Your task to perform on an android device: Find coffee shops on Maps Image 0: 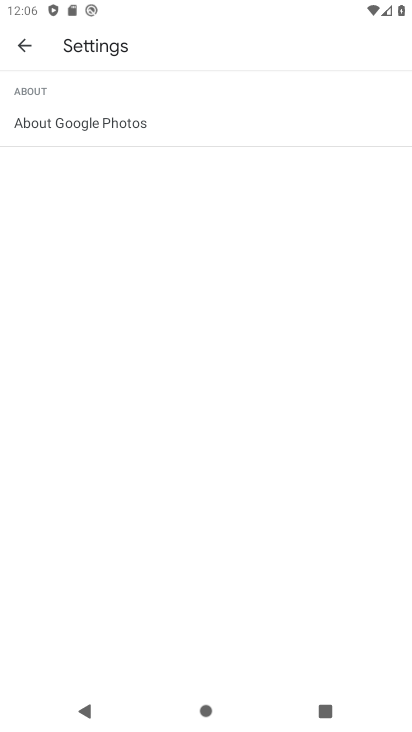
Step 0: press back button
Your task to perform on an android device: Find coffee shops on Maps Image 1: 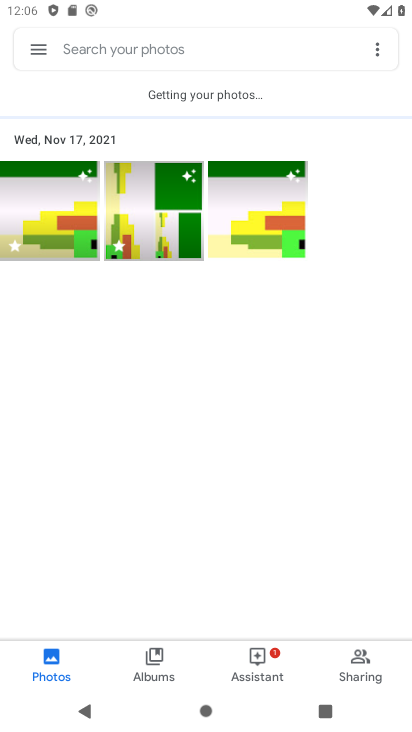
Step 1: press home button
Your task to perform on an android device: Find coffee shops on Maps Image 2: 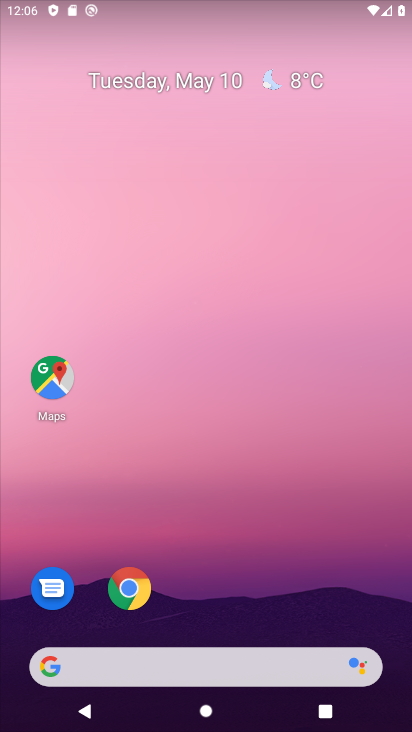
Step 2: click (58, 382)
Your task to perform on an android device: Find coffee shops on Maps Image 3: 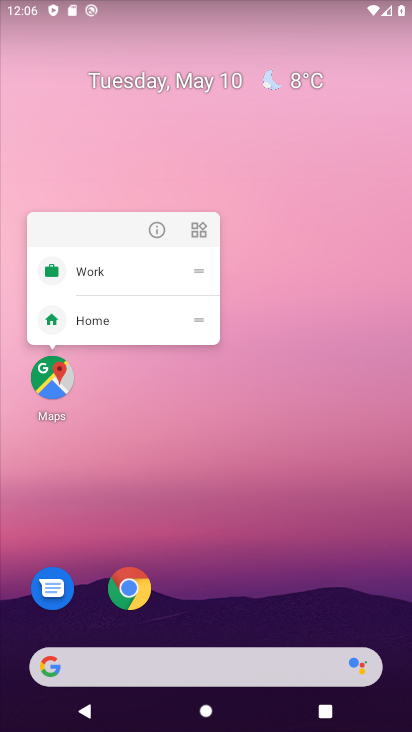
Step 3: click (62, 378)
Your task to perform on an android device: Find coffee shops on Maps Image 4: 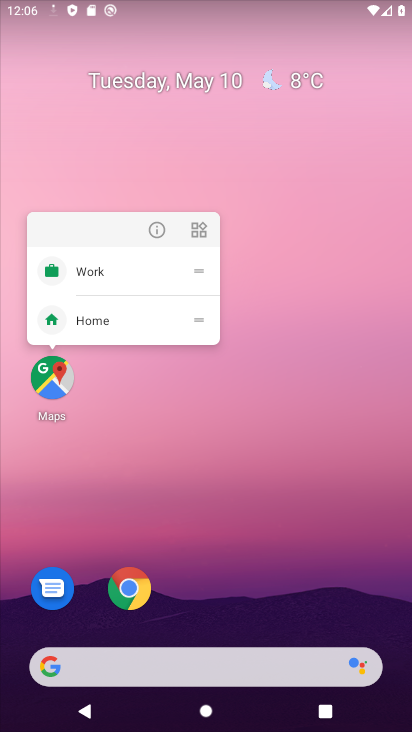
Step 4: click (33, 389)
Your task to perform on an android device: Find coffee shops on Maps Image 5: 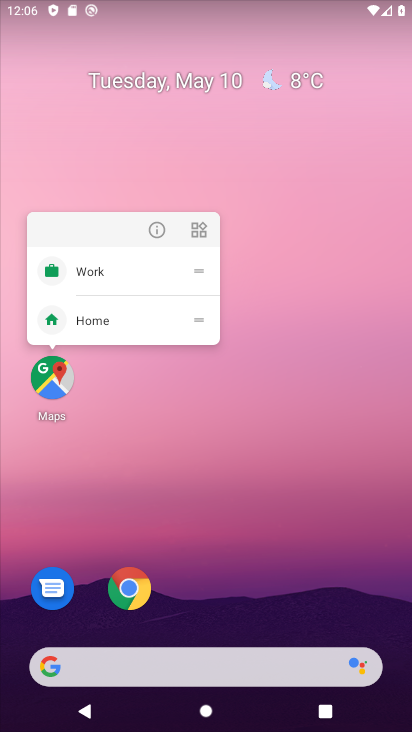
Step 5: click (54, 381)
Your task to perform on an android device: Find coffee shops on Maps Image 6: 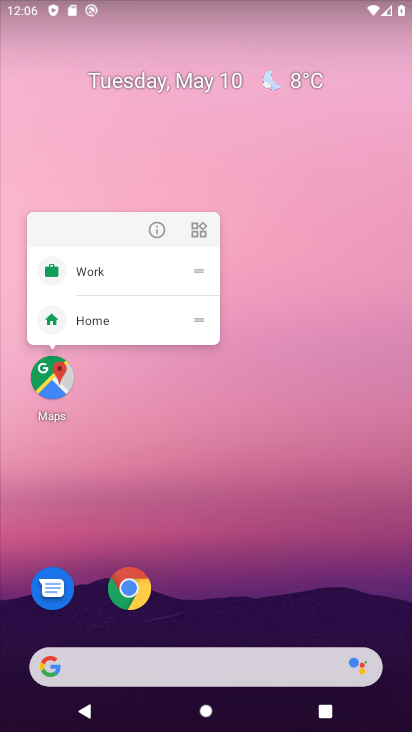
Step 6: click (64, 389)
Your task to perform on an android device: Find coffee shops on Maps Image 7: 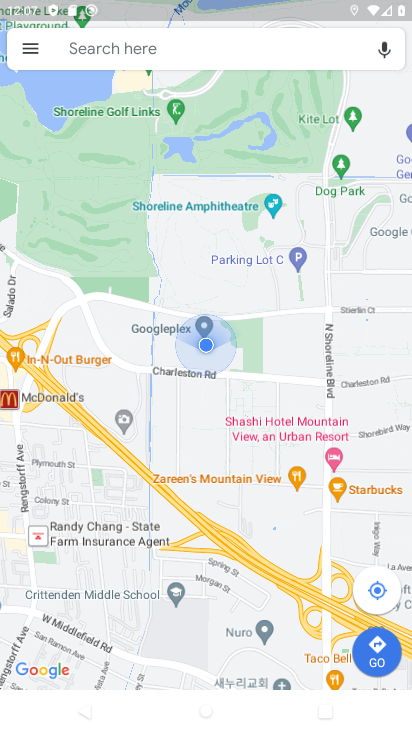
Step 7: click (165, 45)
Your task to perform on an android device: Find coffee shops on Maps Image 8: 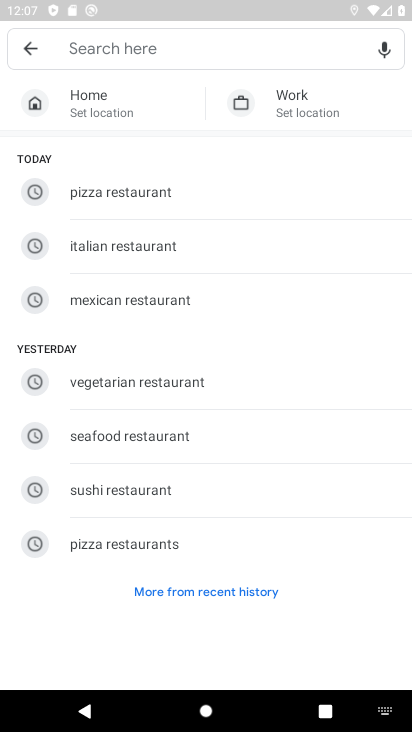
Step 8: type "coffee shops"
Your task to perform on an android device: Find coffee shops on Maps Image 9: 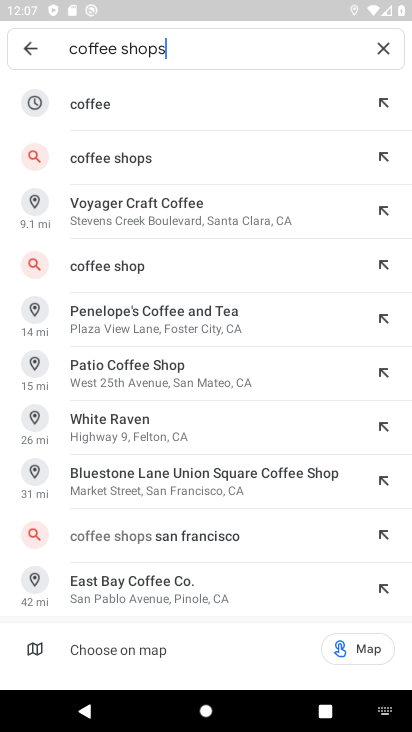
Step 9: click (150, 157)
Your task to perform on an android device: Find coffee shops on Maps Image 10: 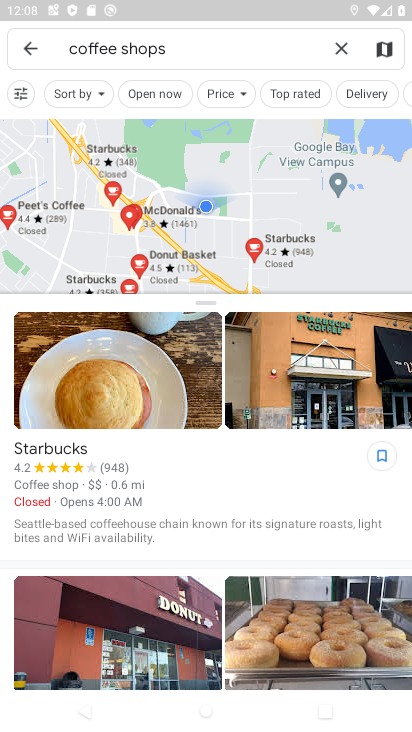
Step 10: task complete